Your task to perform on an android device: manage bookmarks in the chrome app Image 0: 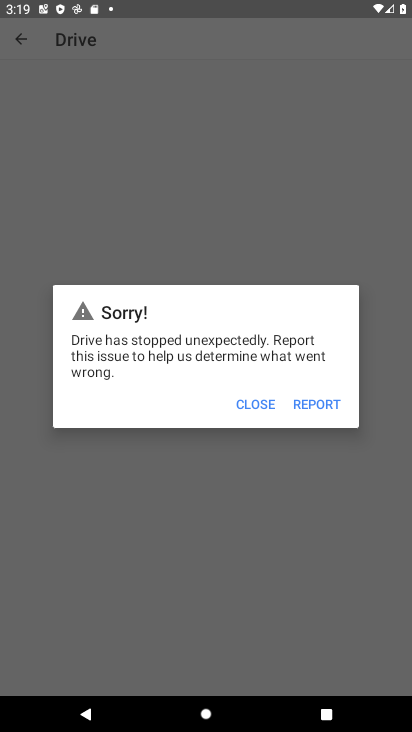
Step 0: press home button
Your task to perform on an android device: manage bookmarks in the chrome app Image 1: 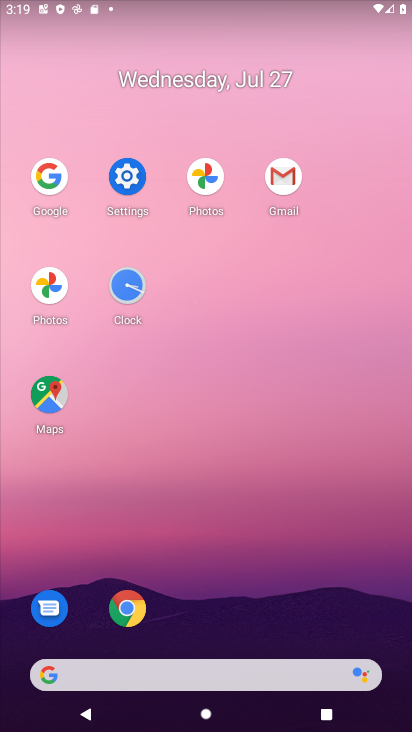
Step 1: click (140, 617)
Your task to perform on an android device: manage bookmarks in the chrome app Image 2: 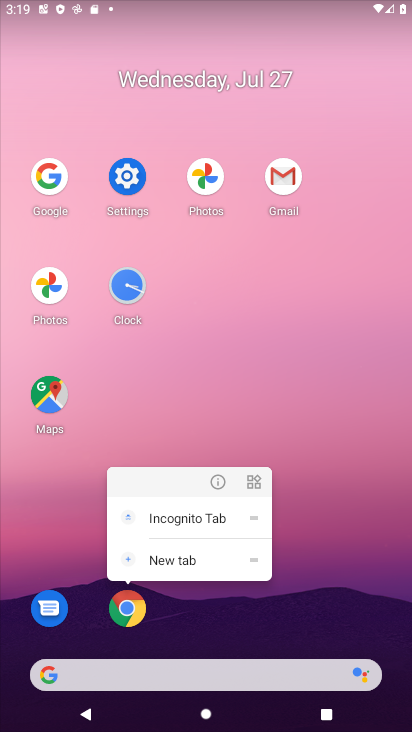
Step 2: click (119, 614)
Your task to perform on an android device: manage bookmarks in the chrome app Image 3: 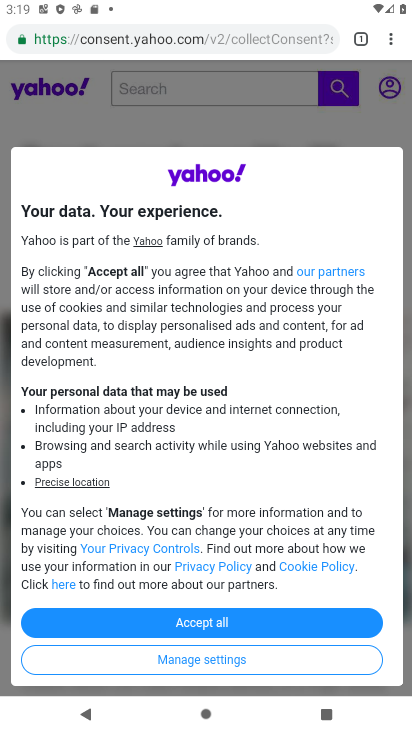
Step 3: click (391, 40)
Your task to perform on an android device: manage bookmarks in the chrome app Image 4: 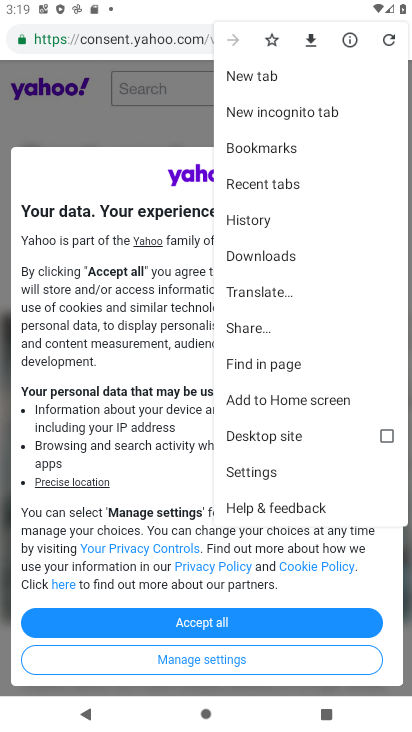
Step 4: click (258, 146)
Your task to perform on an android device: manage bookmarks in the chrome app Image 5: 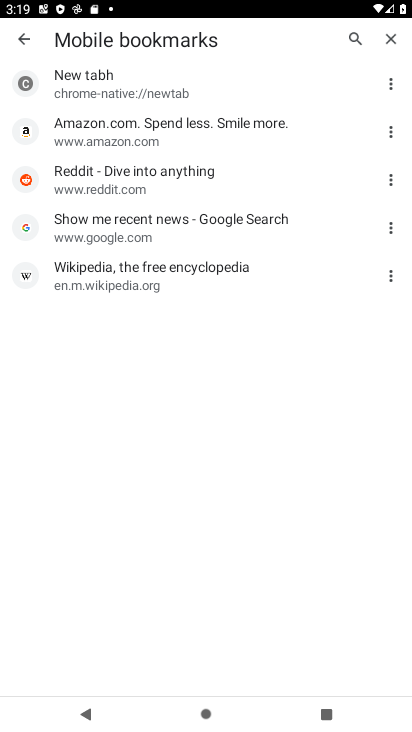
Step 5: click (388, 86)
Your task to perform on an android device: manage bookmarks in the chrome app Image 6: 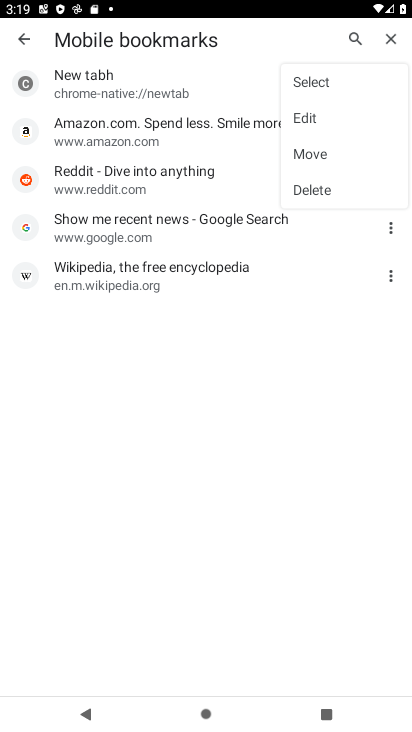
Step 6: click (322, 187)
Your task to perform on an android device: manage bookmarks in the chrome app Image 7: 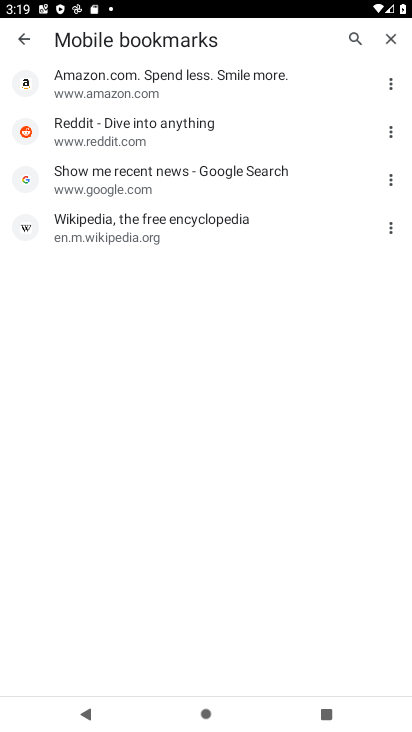
Step 7: task complete